Your task to perform on an android device: clear history in the chrome app Image 0: 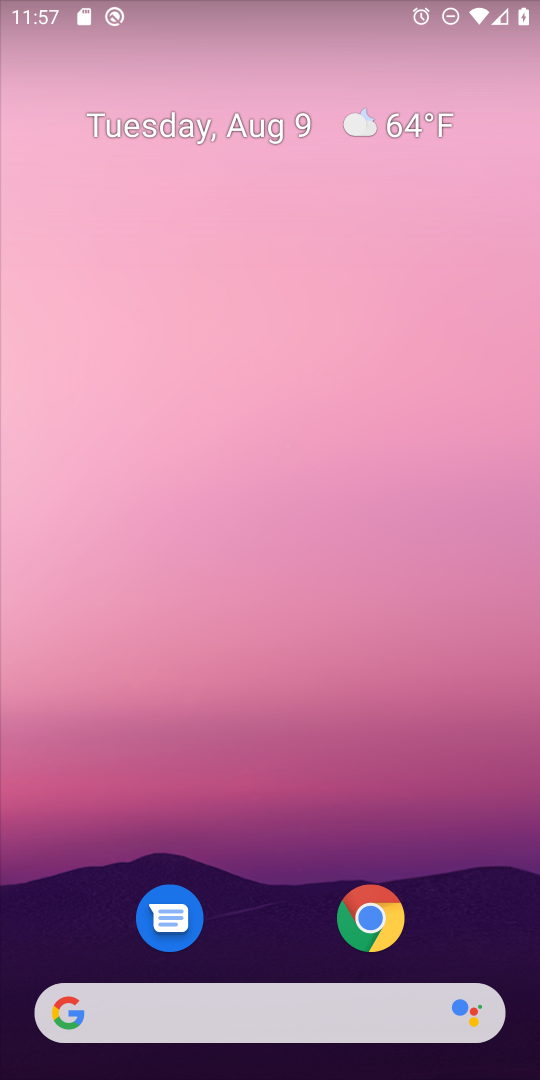
Step 0: drag from (276, 939) to (352, 92)
Your task to perform on an android device: clear history in the chrome app Image 1: 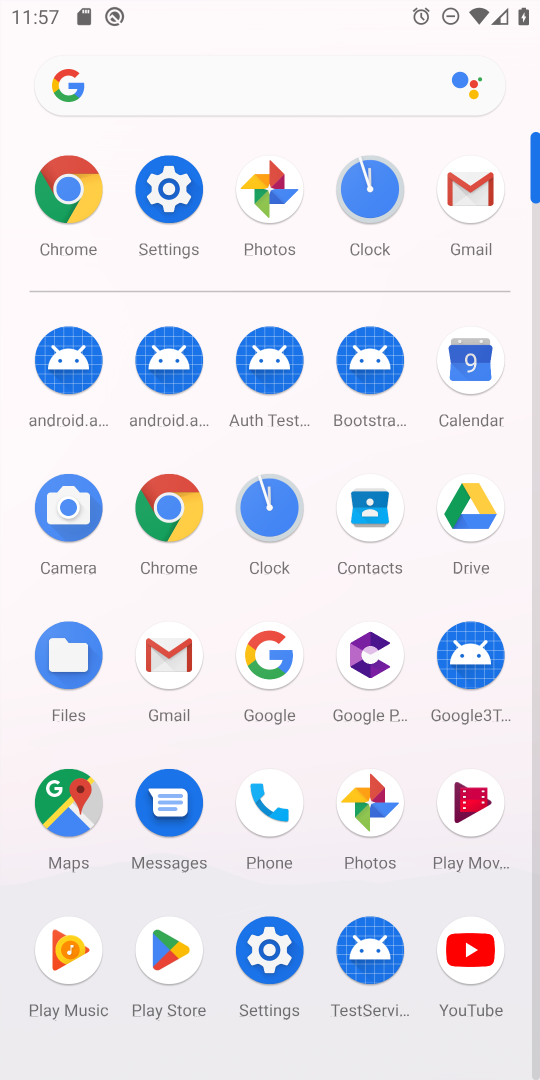
Step 1: click (174, 500)
Your task to perform on an android device: clear history in the chrome app Image 2: 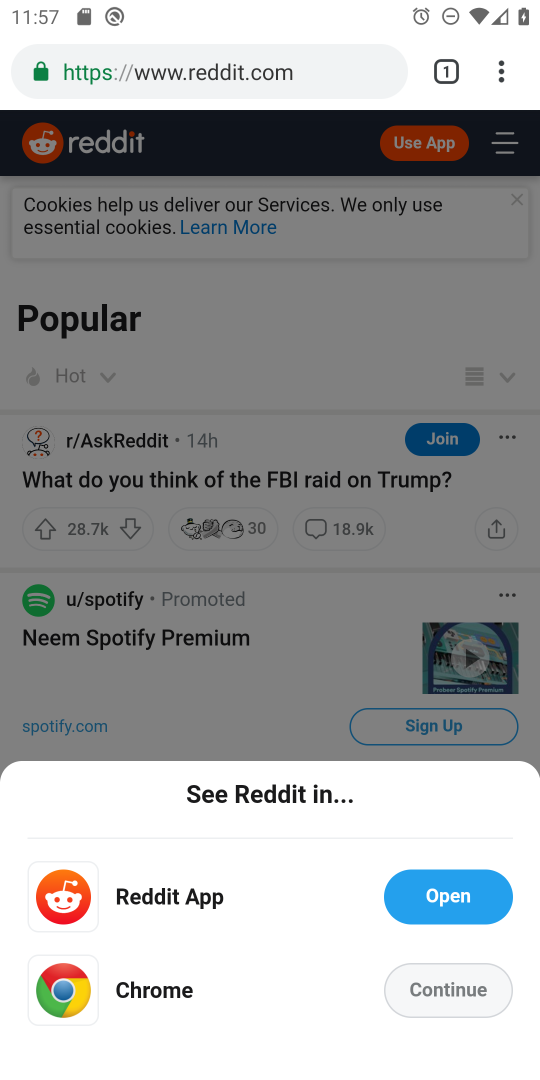
Step 2: click (505, 69)
Your task to perform on an android device: clear history in the chrome app Image 3: 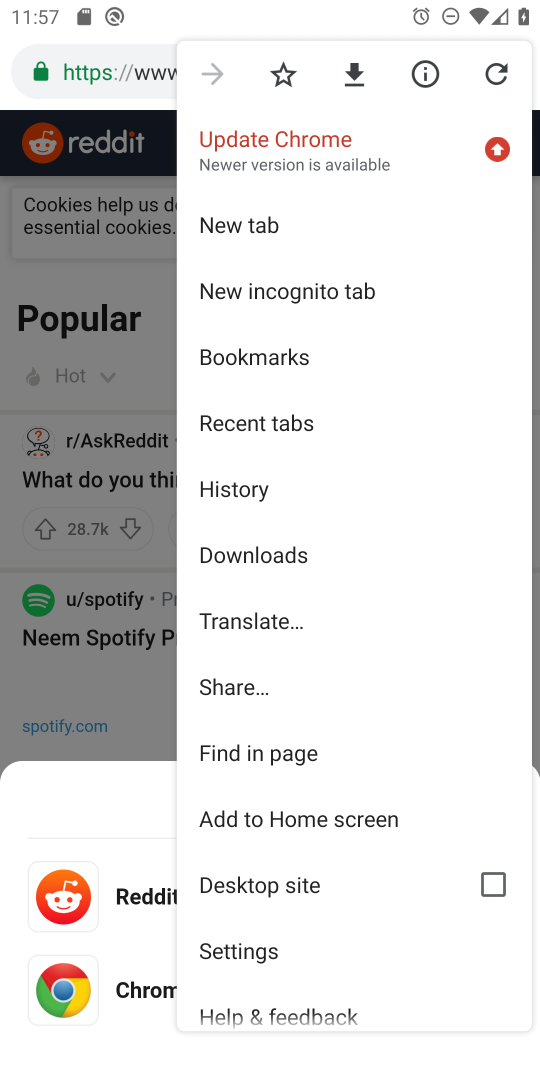
Step 3: click (241, 492)
Your task to perform on an android device: clear history in the chrome app Image 4: 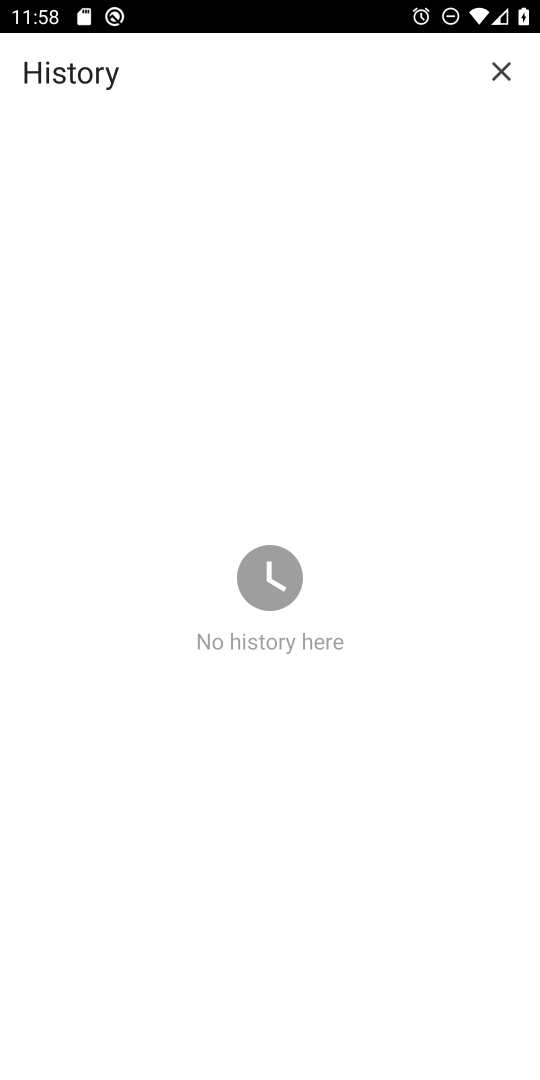
Step 4: task complete